Your task to perform on an android device: turn on sleep mode Image 0: 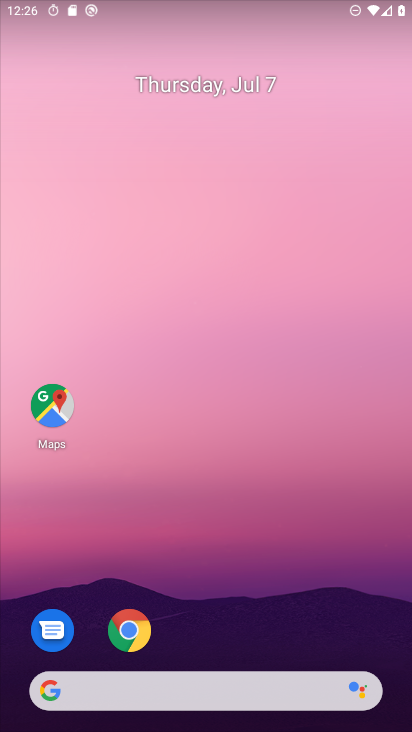
Step 0: drag from (212, 616) to (155, 5)
Your task to perform on an android device: turn on sleep mode Image 1: 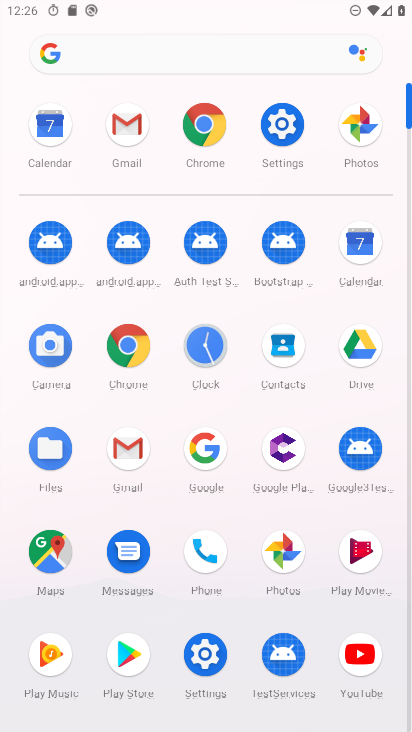
Step 1: click (205, 668)
Your task to perform on an android device: turn on sleep mode Image 2: 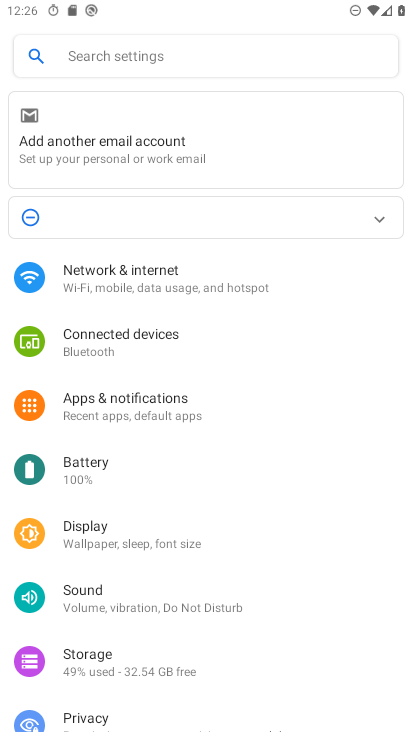
Step 2: click (200, 55)
Your task to perform on an android device: turn on sleep mode Image 3: 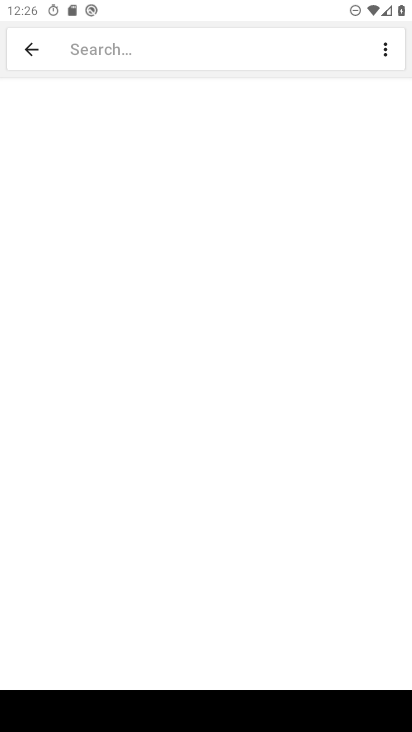
Step 3: type "sleep mode"
Your task to perform on an android device: turn on sleep mode Image 4: 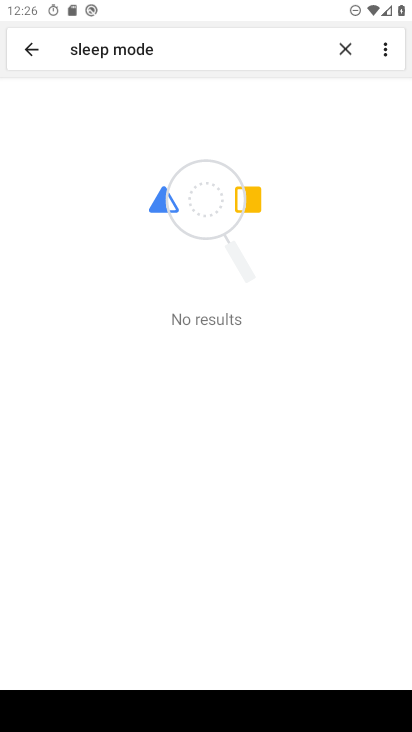
Step 4: task complete